Your task to perform on an android device: toggle notification dots Image 0: 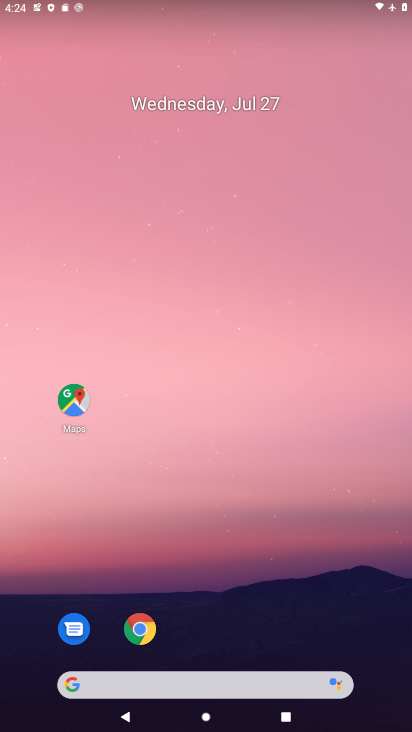
Step 0: drag from (228, 650) to (230, 277)
Your task to perform on an android device: toggle notification dots Image 1: 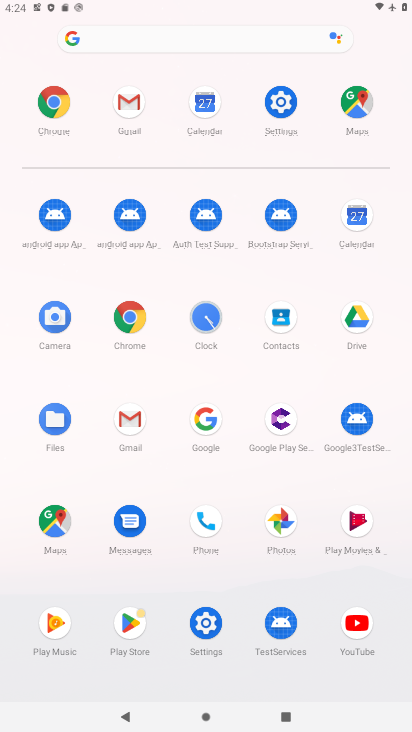
Step 1: click (221, 612)
Your task to perform on an android device: toggle notification dots Image 2: 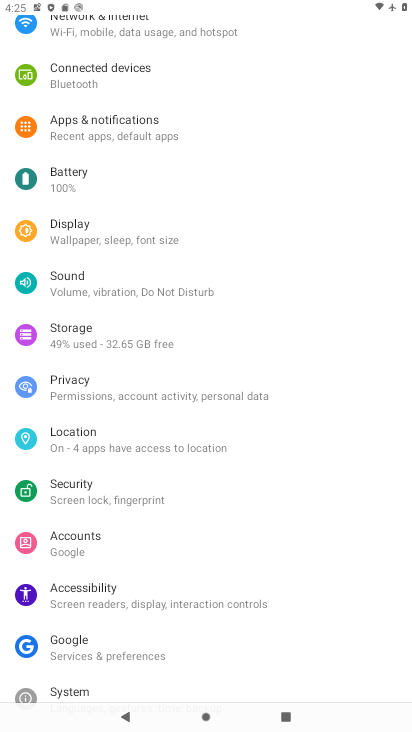
Step 2: click (143, 135)
Your task to perform on an android device: toggle notification dots Image 3: 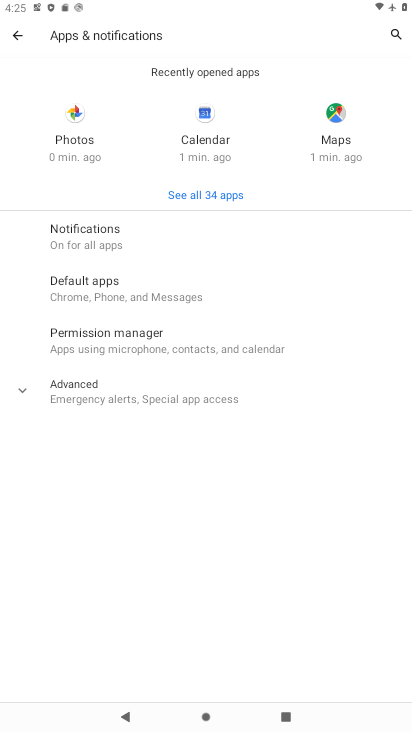
Step 3: click (140, 378)
Your task to perform on an android device: toggle notification dots Image 4: 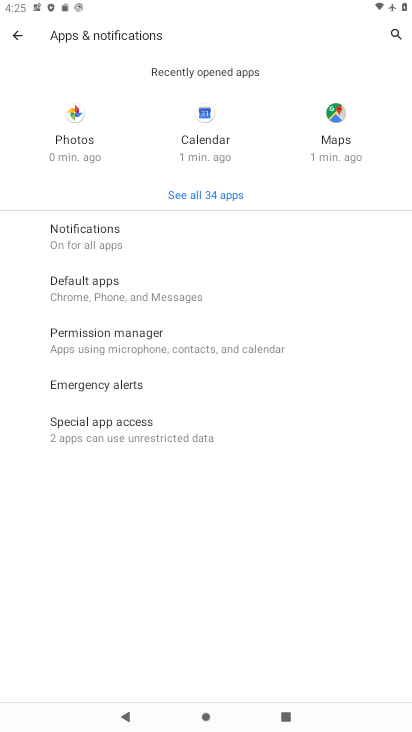
Step 4: click (112, 245)
Your task to perform on an android device: toggle notification dots Image 5: 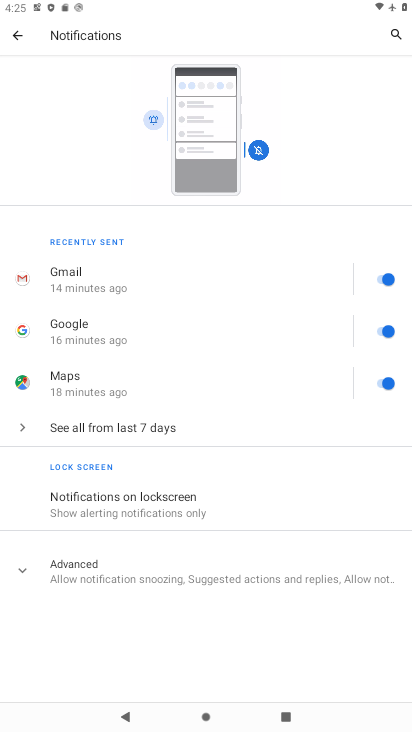
Step 5: click (210, 572)
Your task to perform on an android device: toggle notification dots Image 6: 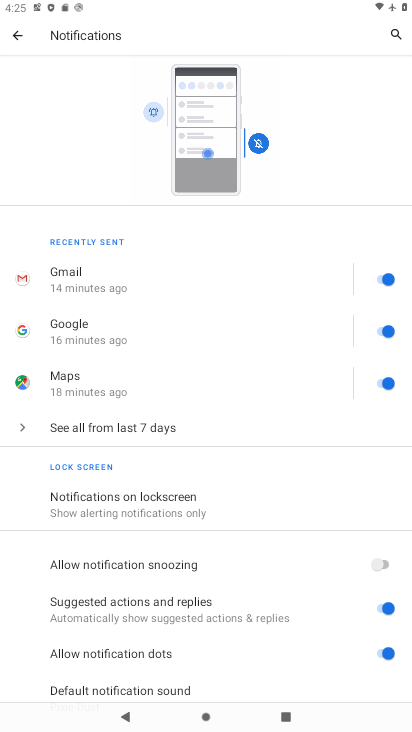
Step 6: click (382, 653)
Your task to perform on an android device: toggle notification dots Image 7: 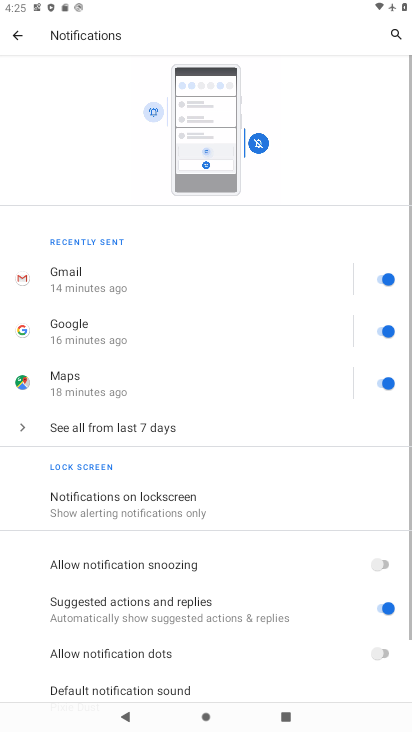
Step 7: task complete